Your task to perform on an android device: change notifications settings Image 0: 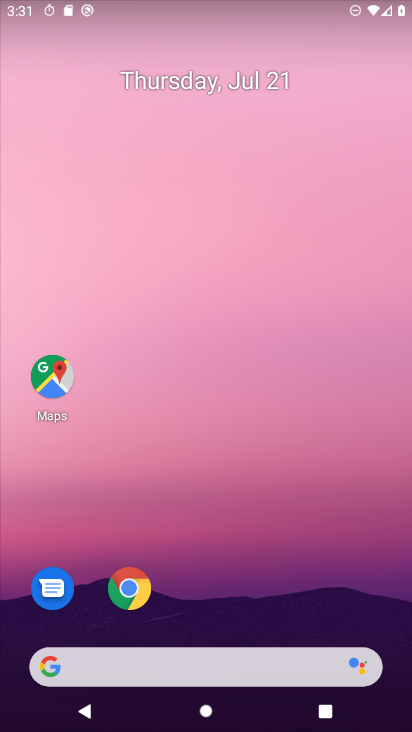
Step 0: drag from (234, 667) to (311, 217)
Your task to perform on an android device: change notifications settings Image 1: 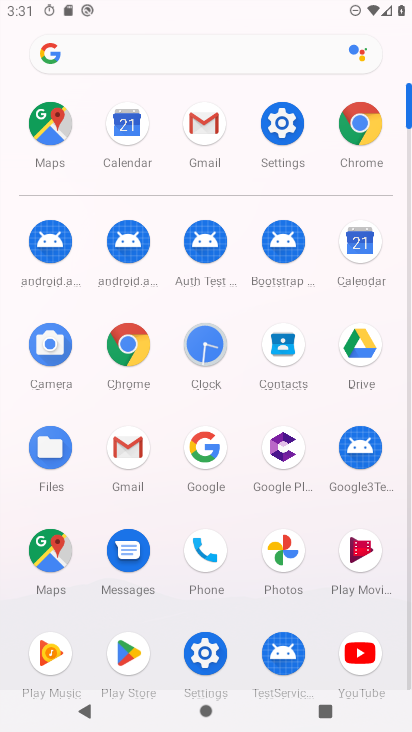
Step 1: click (288, 154)
Your task to perform on an android device: change notifications settings Image 2: 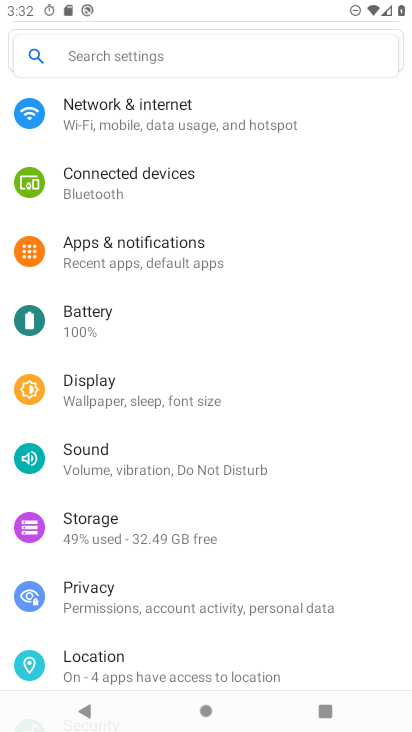
Step 2: click (157, 255)
Your task to perform on an android device: change notifications settings Image 3: 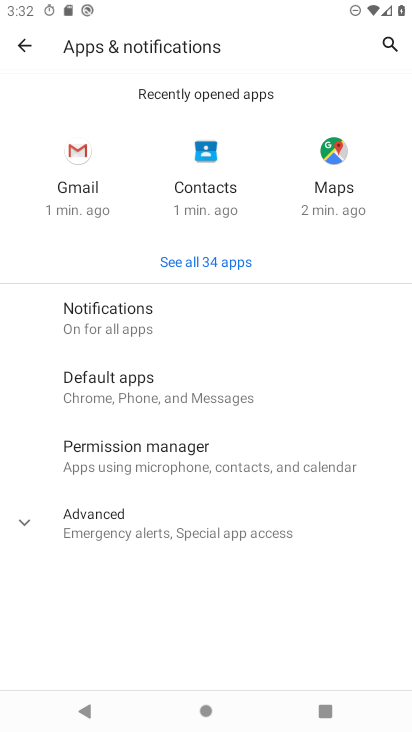
Step 3: click (173, 330)
Your task to perform on an android device: change notifications settings Image 4: 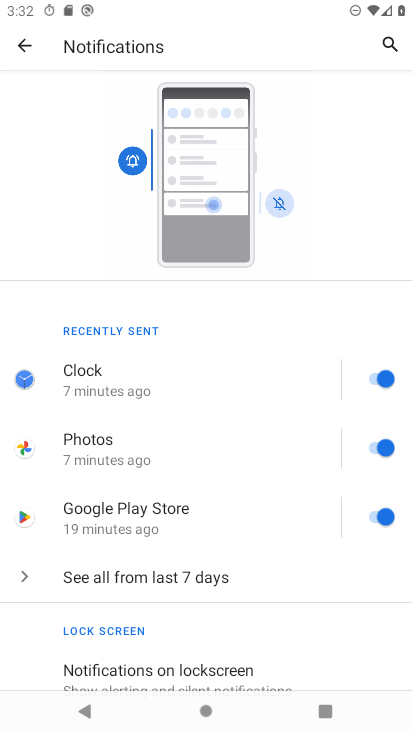
Step 4: click (381, 384)
Your task to perform on an android device: change notifications settings Image 5: 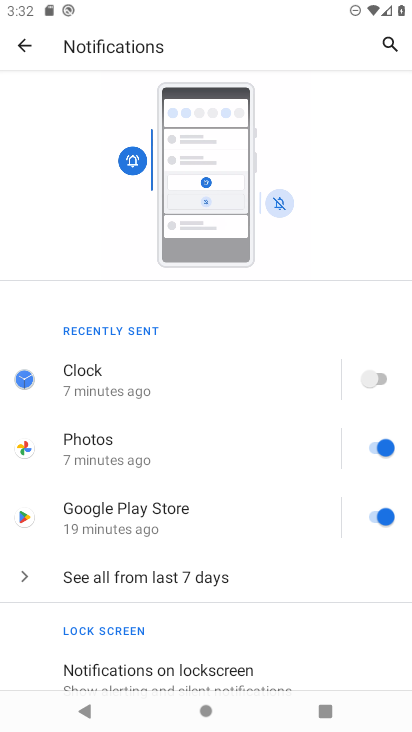
Step 5: task complete